Your task to perform on an android device: open app "Airtel Thanks" Image 0: 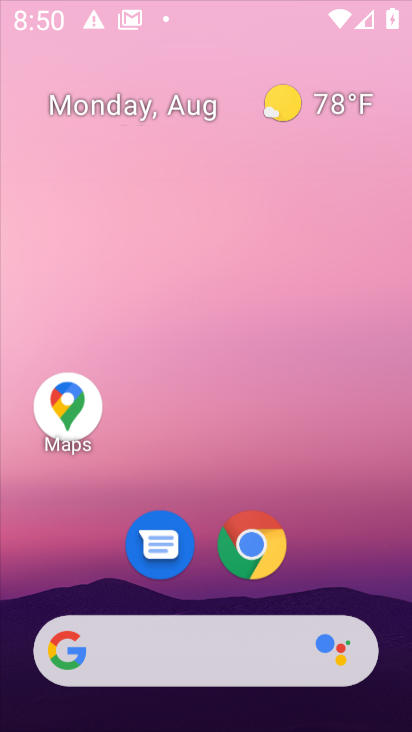
Step 0: press home button
Your task to perform on an android device: open app "Airtel Thanks" Image 1: 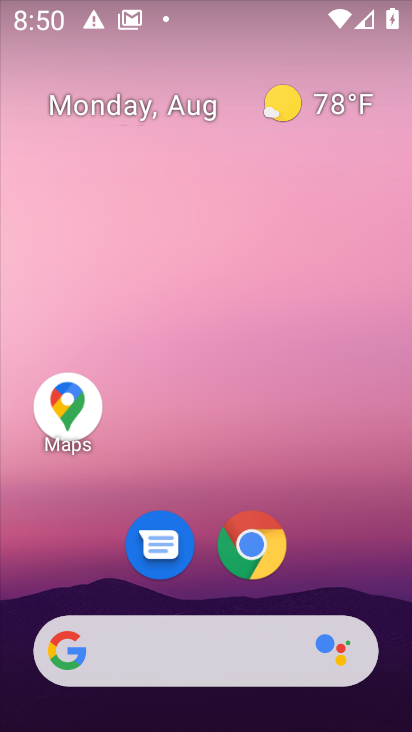
Step 1: drag from (334, 579) to (329, 89)
Your task to perform on an android device: open app "Airtel Thanks" Image 2: 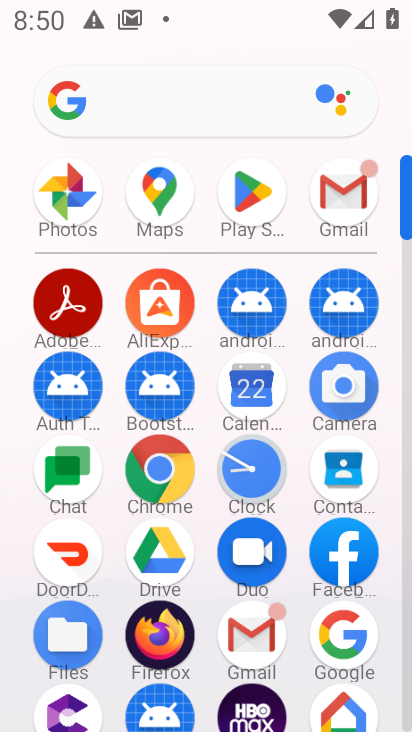
Step 2: click (253, 189)
Your task to perform on an android device: open app "Airtel Thanks" Image 3: 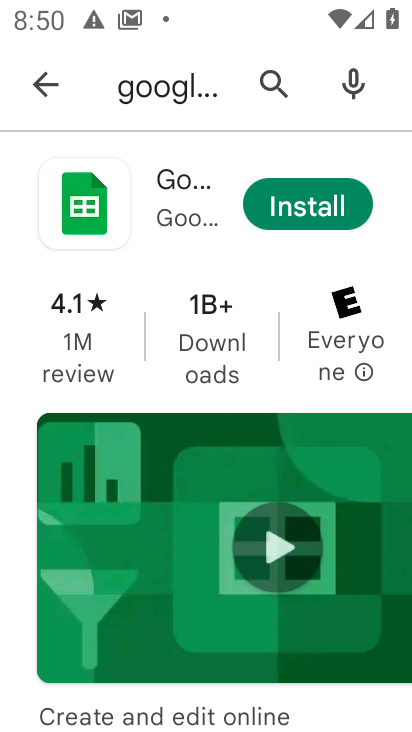
Step 3: press back button
Your task to perform on an android device: open app "Airtel Thanks" Image 4: 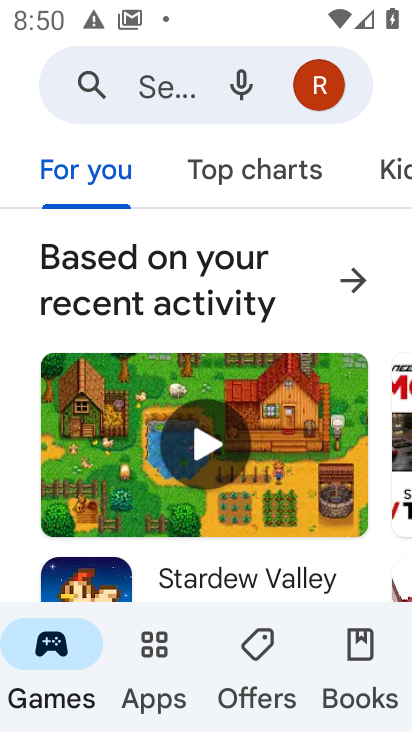
Step 4: click (135, 86)
Your task to perform on an android device: open app "Airtel Thanks" Image 5: 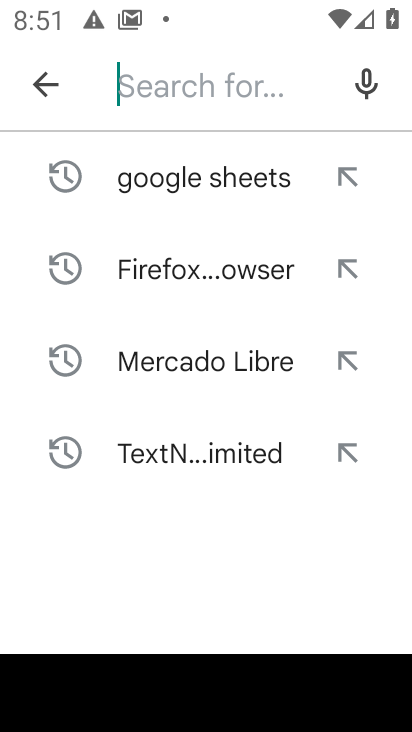
Step 5: type "Airtel Thanks"
Your task to perform on an android device: open app "Airtel Thanks" Image 6: 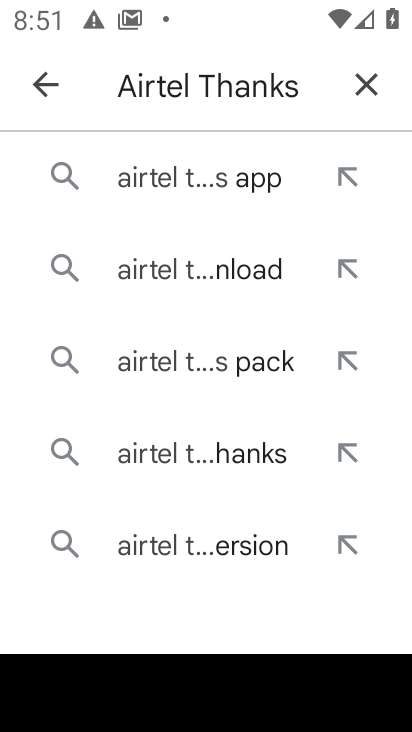
Step 6: click (264, 183)
Your task to perform on an android device: open app "Airtel Thanks" Image 7: 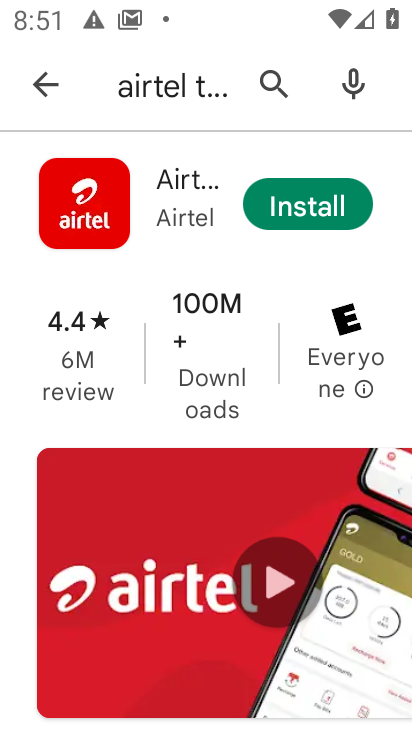
Step 7: task complete